Your task to perform on an android device: Go to privacy settings Image 0: 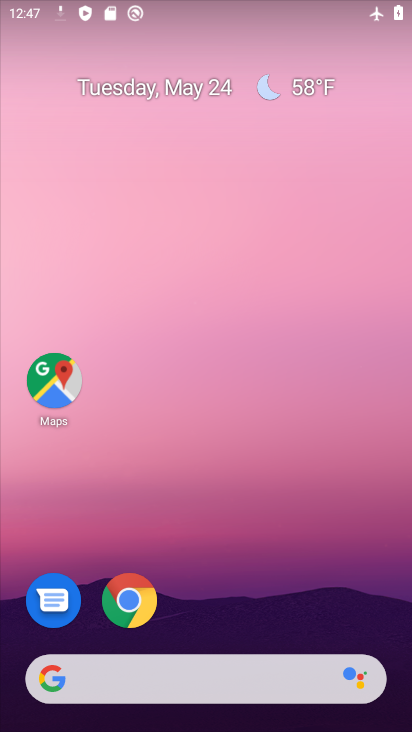
Step 0: drag from (289, 586) to (195, 79)
Your task to perform on an android device: Go to privacy settings Image 1: 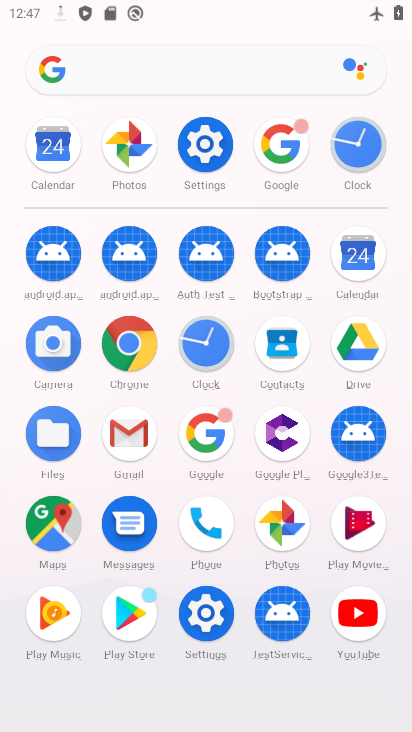
Step 1: click (210, 157)
Your task to perform on an android device: Go to privacy settings Image 2: 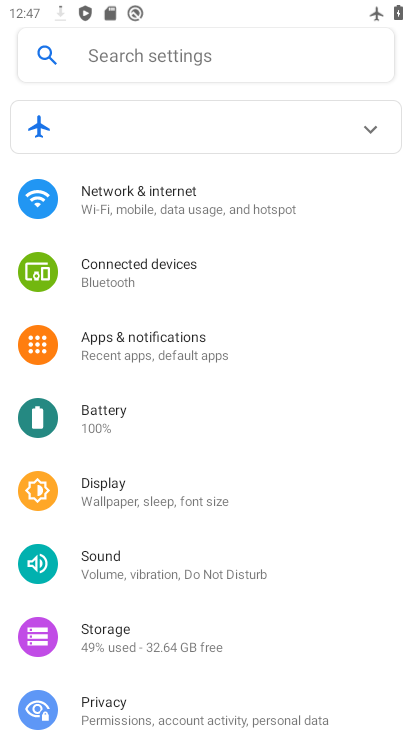
Step 2: click (194, 709)
Your task to perform on an android device: Go to privacy settings Image 3: 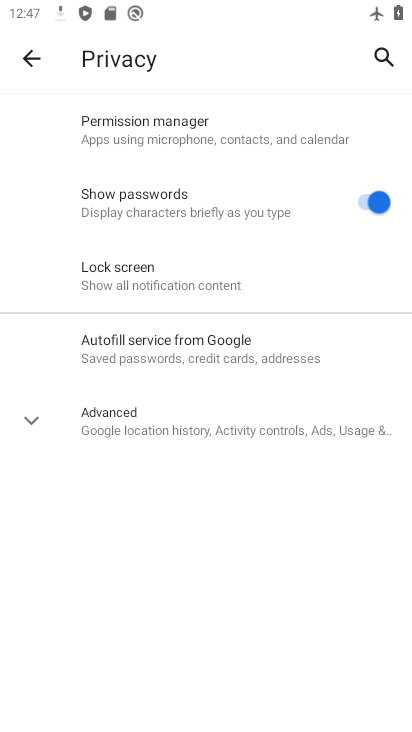
Step 3: task complete